Your task to perform on an android device: Open Google Chrome and open the bookmarks view Image 0: 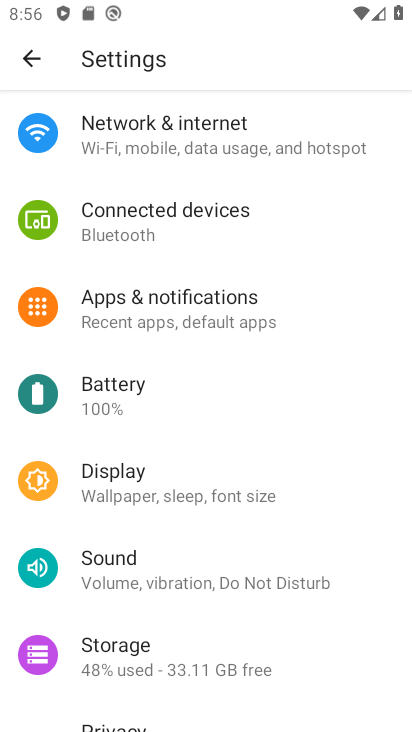
Step 0: press home button
Your task to perform on an android device: Open Google Chrome and open the bookmarks view Image 1: 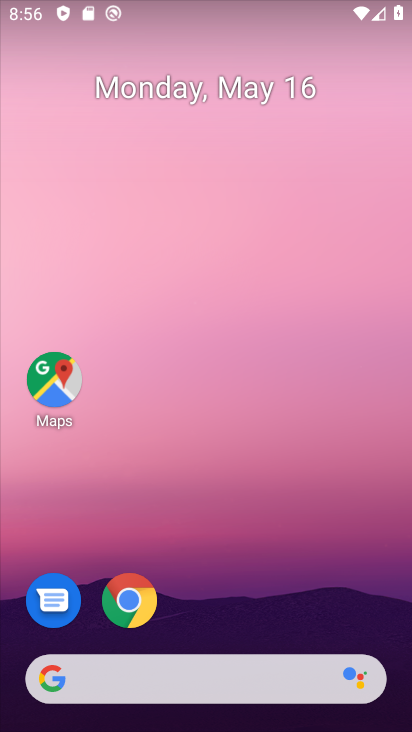
Step 1: click (125, 614)
Your task to perform on an android device: Open Google Chrome and open the bookmarks view Image 2: 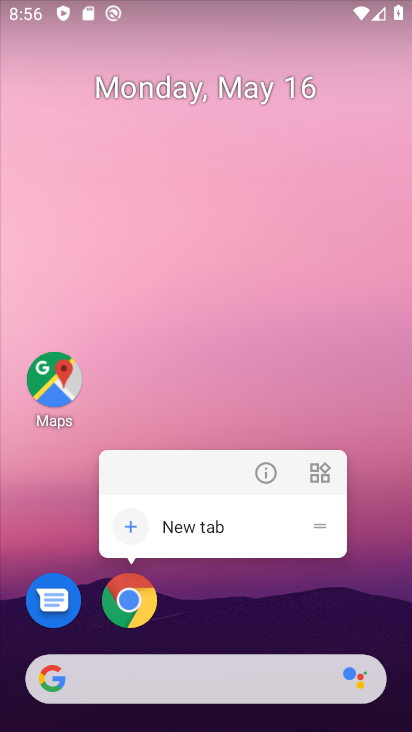
Step 2: click (125, 601)
Your task to perform on an android device: Open Google Chrome and open the bookmarks view Image 3: 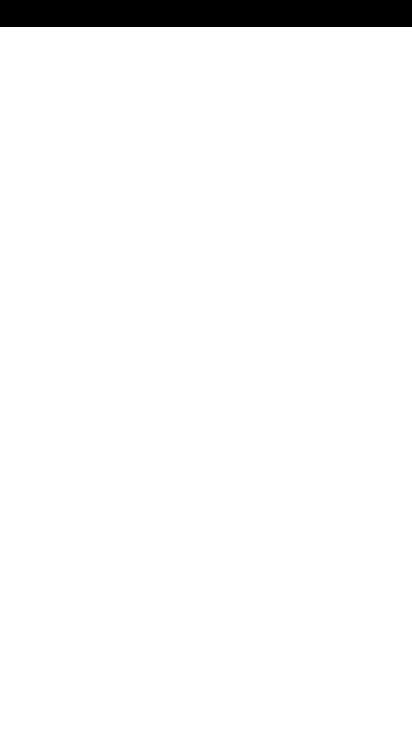
Step 3: click (128, 622)
Your task to perform on an android device: Open Google Chrome and open the bookmarks view Image 4: 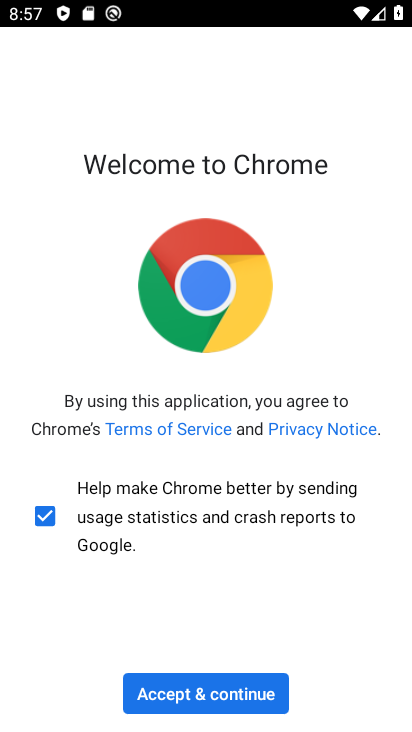
Step 4: click (161, 703)
Your task to perform on an android device: Open Google Chrome and open the bookmarks view Image 5: 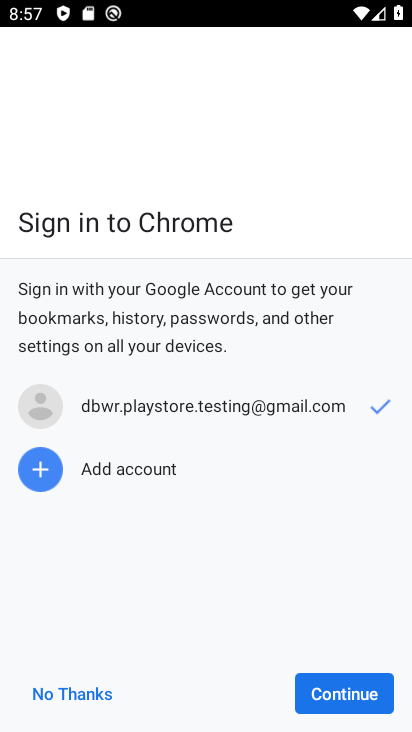
Step 5: click (334, 695)
Your task to perform on an android device: Open Google Chrome and open the bookmarks view Image 6: 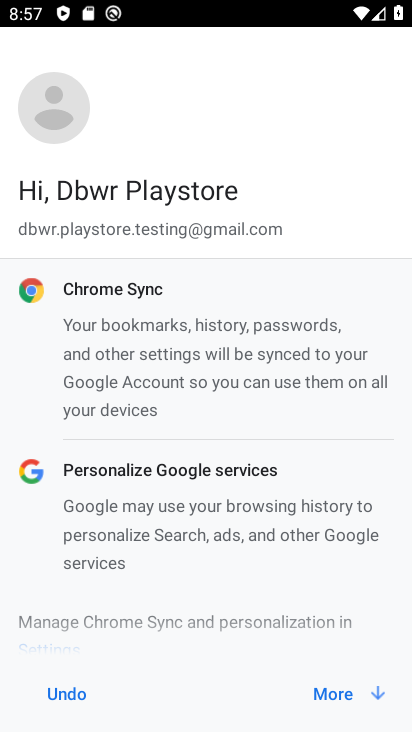
Step 6: click (337, 688)
Your task to perform on an android device: Open Google Chrome and open the bookmarks view Image 7: 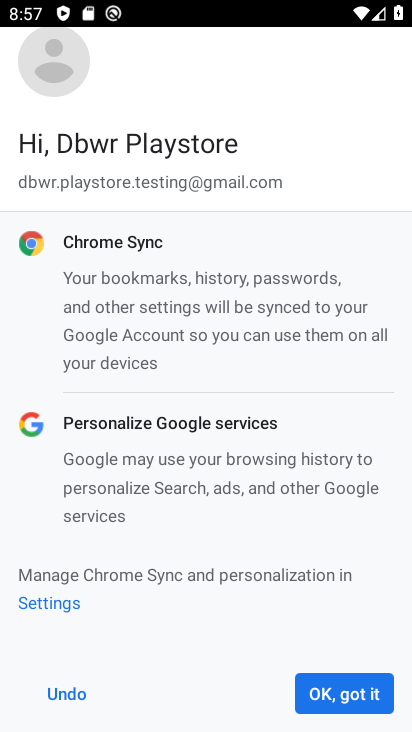
Step 7: click (356, 709)
Your task to perform on an android device: Open Google Chrome and open the bookmarks view Image 8: 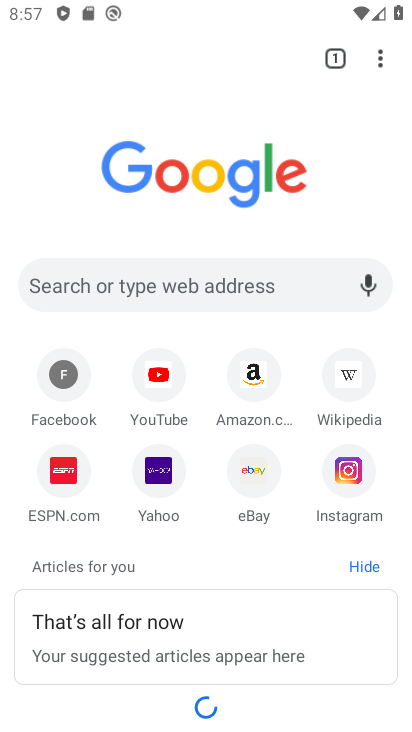
Step 8: click (383, 61)
Your task to perform on an android device: Open Google Chrome and open the bookmarks view Image 9: 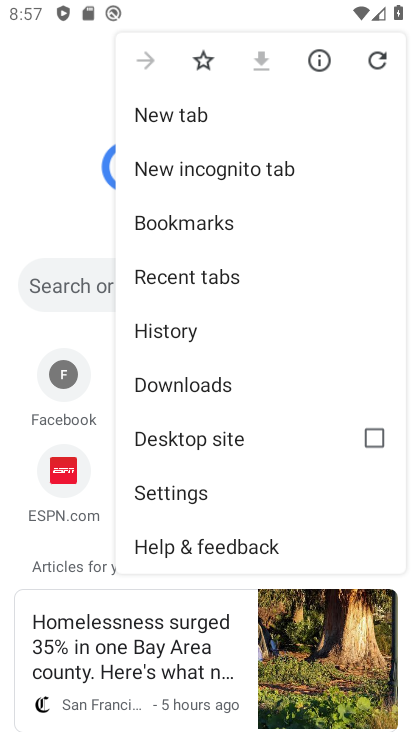
Step 9: click (164, 226)
Your task to perform on an android device: Open Google Chrome and open the bookmarks view Image 10: 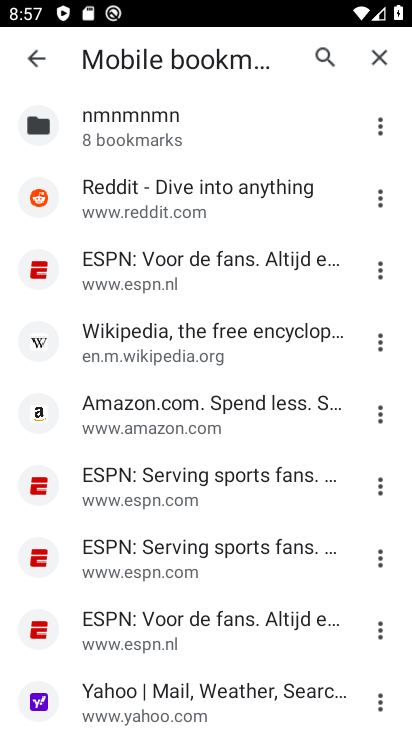
Step 10: click (201, 217)
Your task to perform on an android device: Open Google Chrome and open the bookmarks view Image 11: 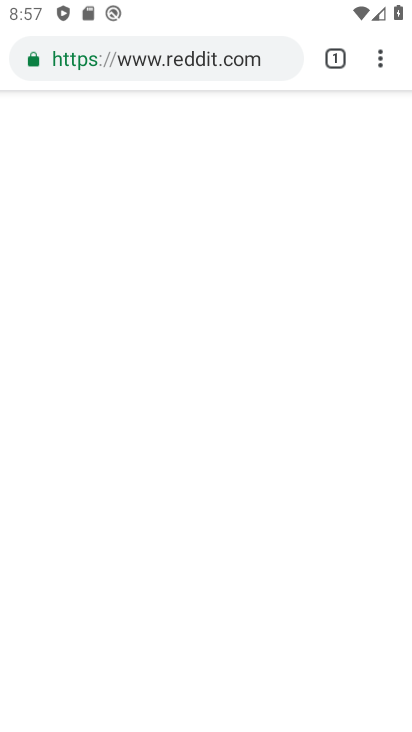
Step 11: task complete